Your task to perform on an android device: Search for Mexican restaurants on Maps Image 0: 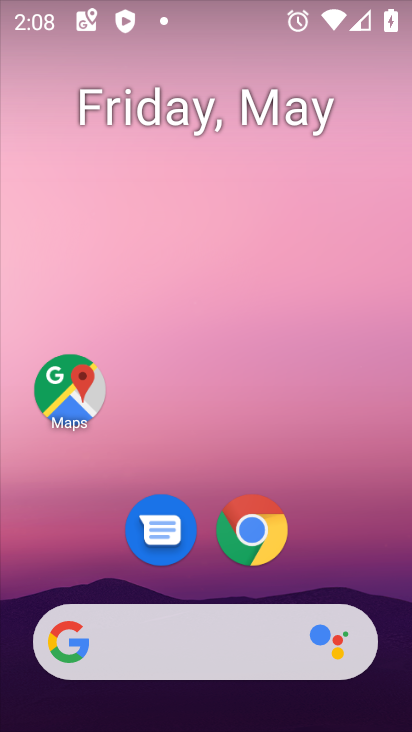
Step 0: click (66, 376)
Your task to perform on an android device: Search for Mexican restaurants on Maps Image 1: 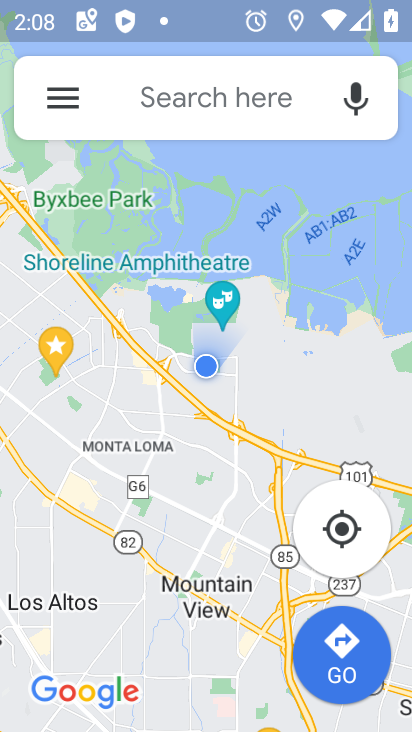
Step 1: click (140, 96)
Your task to perform on an android device: Search for Mexican restaurants on Maps Image 2: 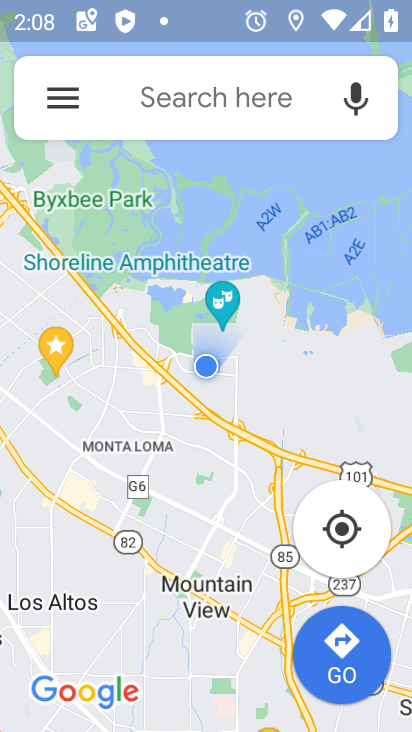
Step 2: click (263, 87)
Your task to perform on an android device: Search for Mexican restaurants on Maps Image 3: 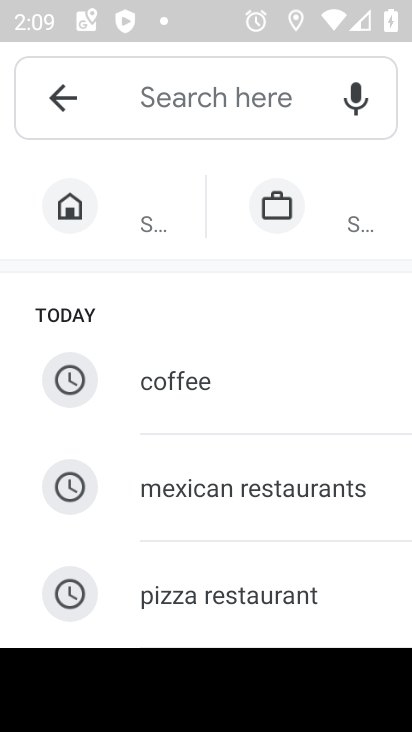
Step 3: type "mexican restaurants"
Your task to perform on an android device: Search for Mexican restaurants on Maps Image 4: 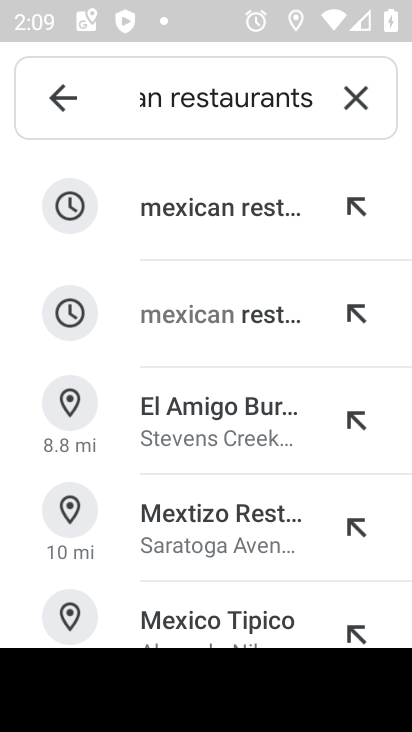
Step 4: click (217, 196)
Your task to perform on an android device: Search for Mexican restaurants on Maps Image 5: 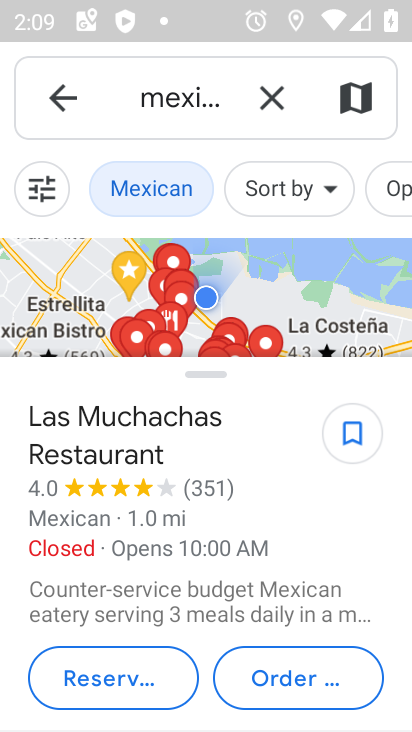
Step 5: task complete